Your task to perform on an android device: open wifi settings Image 0: 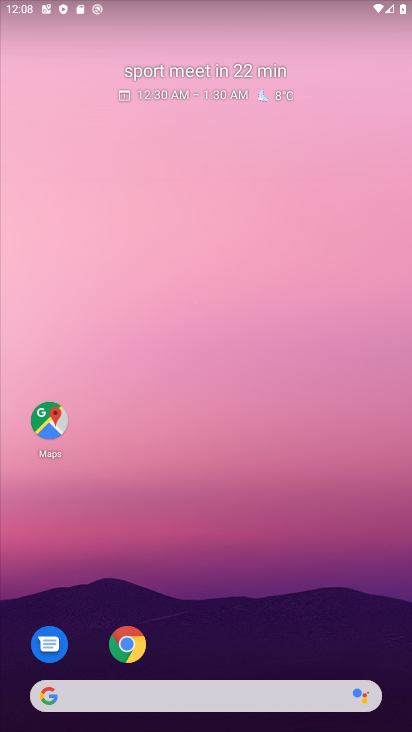
Step 0: drag from (86, 9) to (223, 594)
Your task to perform on an android device: open wifi settings Image 1: 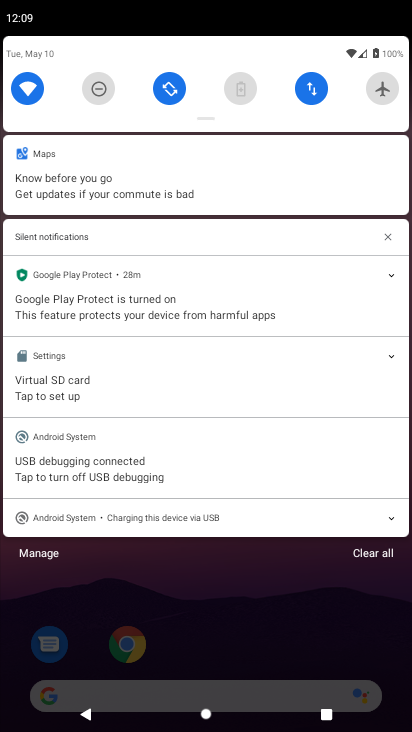
Step 1: click (28, 94)
Your task to perform on an android device: open wifi settings Image 2: 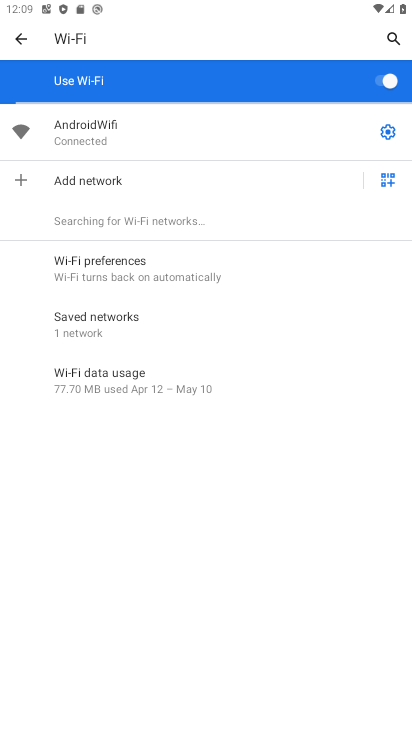
Step 2: task complete